Your task to perform on an android device: Open Google Image 0: 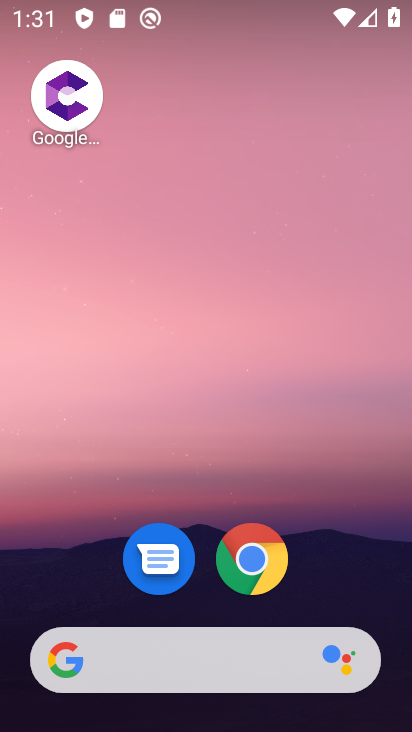
Step 0: click (273, 555)
Your task to perform on an android device: Open Google Image 1: 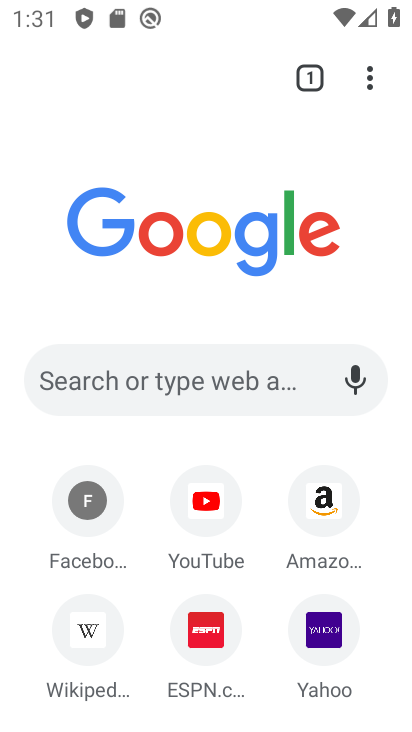
Step 1: task complete